Your task to perform on an android device: Do I have any events tomorrow? Image 0: 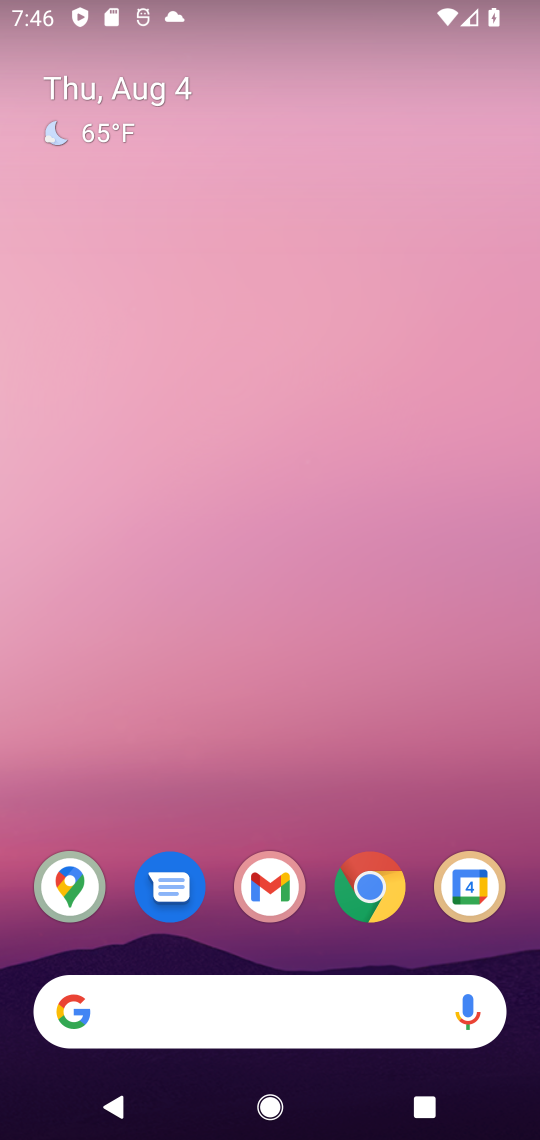
Step 0: drag from (280, 972) to (217, 121)
Your task to perform on an android device: Do I have any events tomorrow? Image 1: 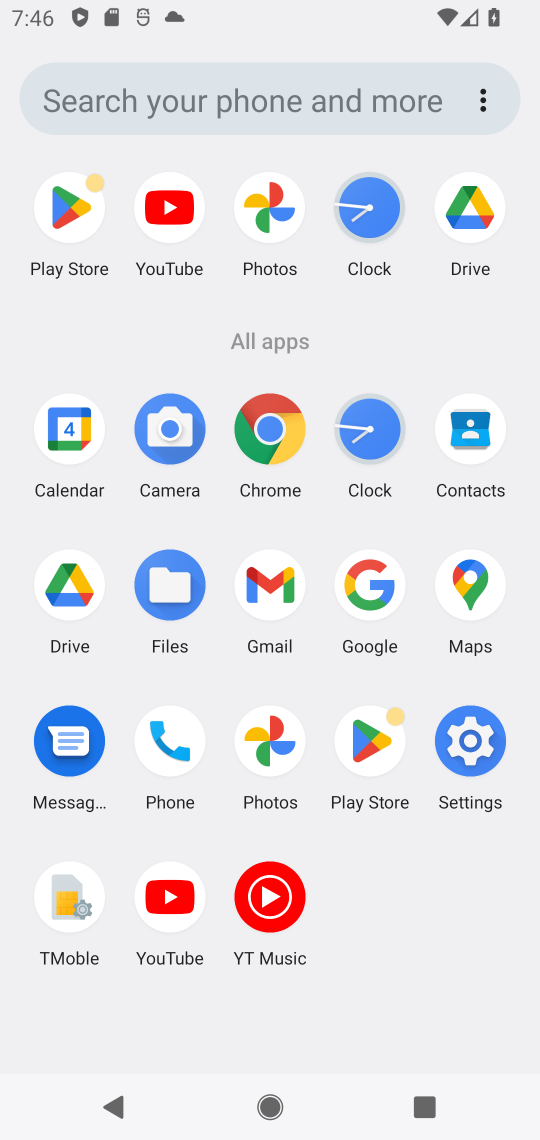
Step 1: click (62, 449)
Your task to perform on an android device: Do I have any events tomorrow? Image 2: 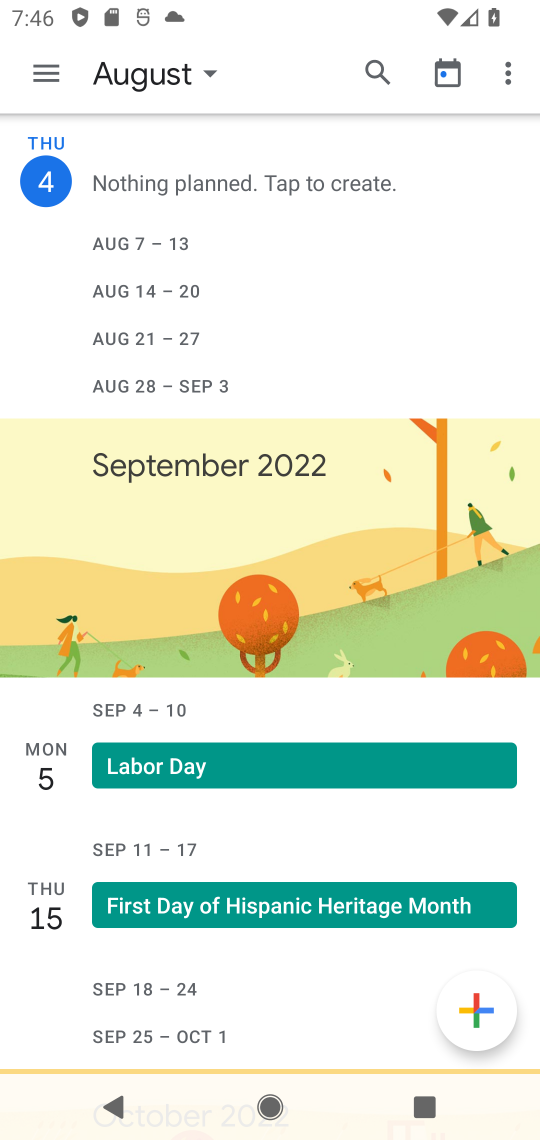
Step 2: click (171, 77)
Your task to perform on an android device: Do I have any events tomorrow? Image 3: 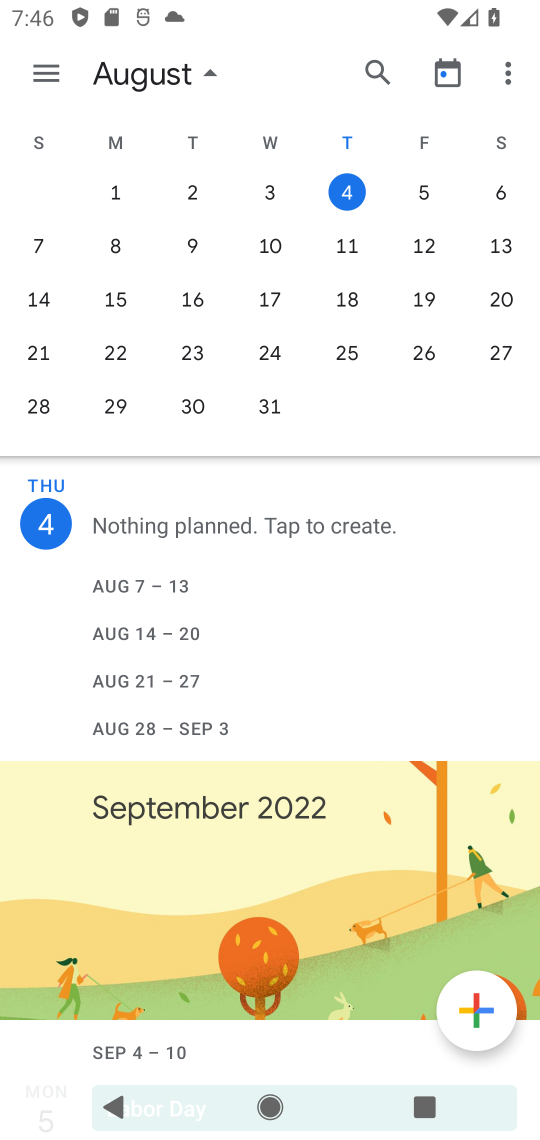
Step 3: click (427, 194)
Your task to perform on an android device: Do I have any events tomorrow? Image 4: 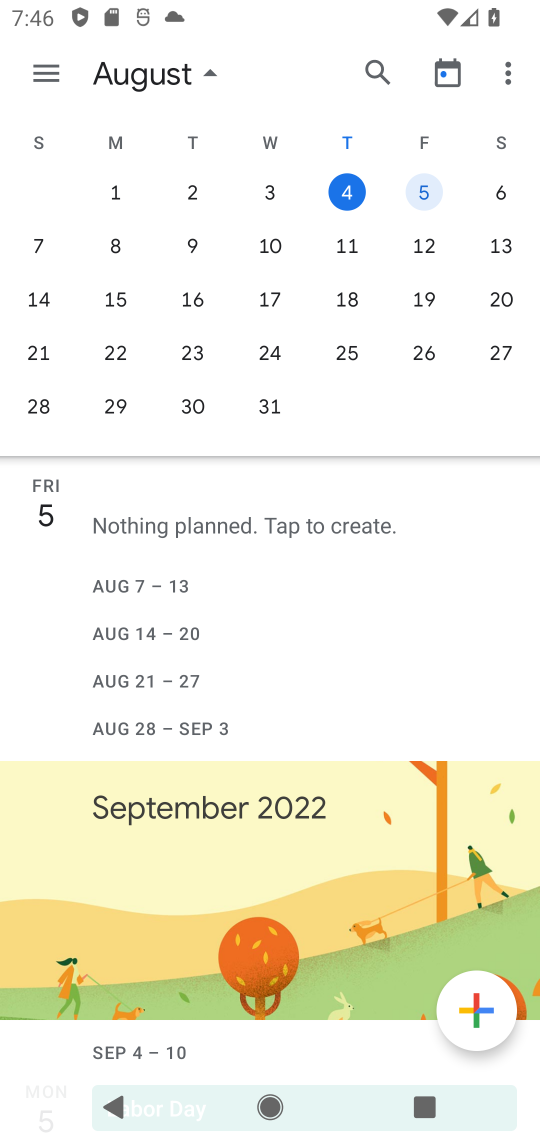
Step 4: task complete